Your task to perform on an android device: create a new album in the google photos Image 0: 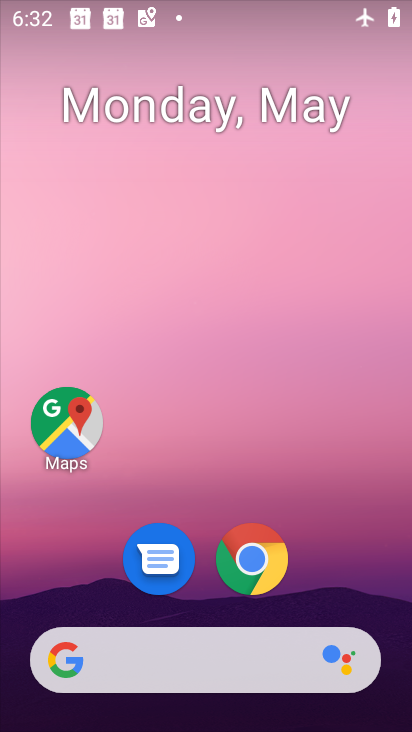
Step 0: drag from (383, 663) to (273, 61)
Your task to perform on an android device: create a new album in the google photos Image 1: 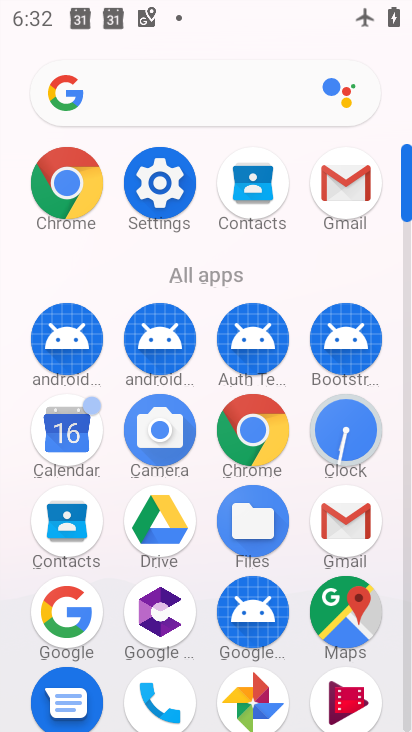
Step 1: click (245, 719)
Your task to perform on an android device: create a new album in the google photos Image 2: 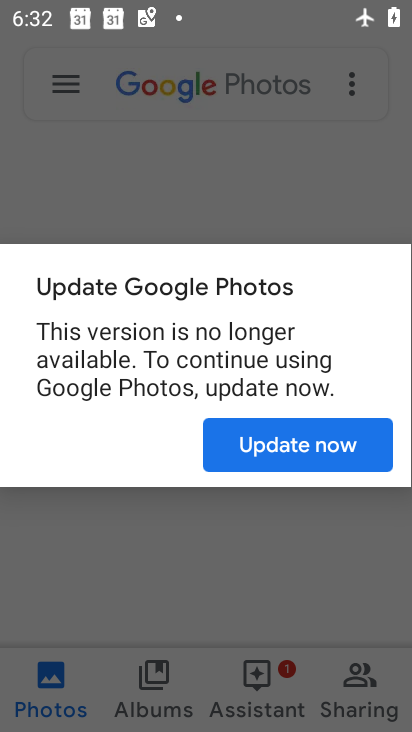
Step 2: click (272, 440)
Your task to perform on an android device: create a new album in the google photos Image 3: 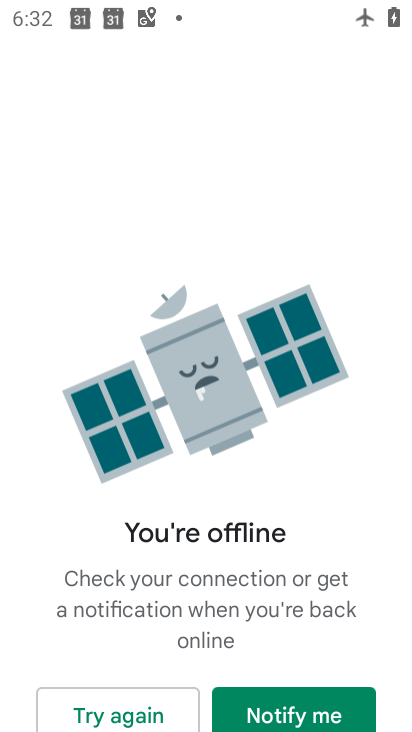
Step 3: click (114, 718)
Your task to perform on an android device: create a new album in the google photos Image 4: 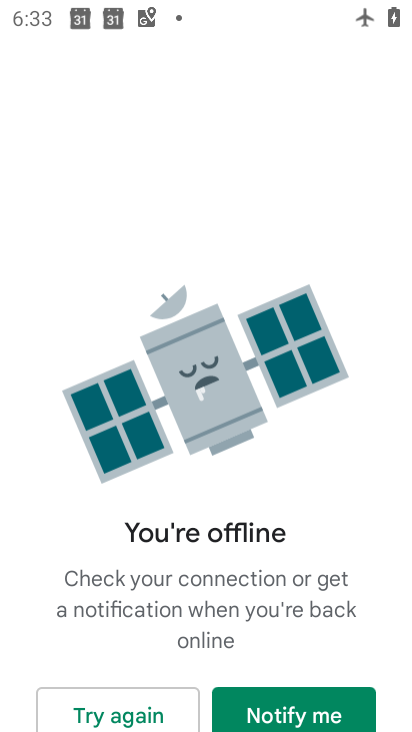
Step 4: task complete